Your task to perform on an android device: When is my next meeting? Image 0: 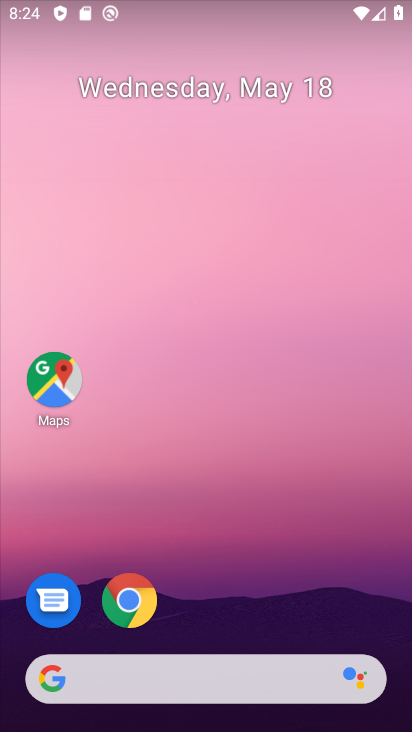
Step 0: drag from (46, 449) to (169, 99)
Your task to perform on an android device: When is my next meeting? Image 1: 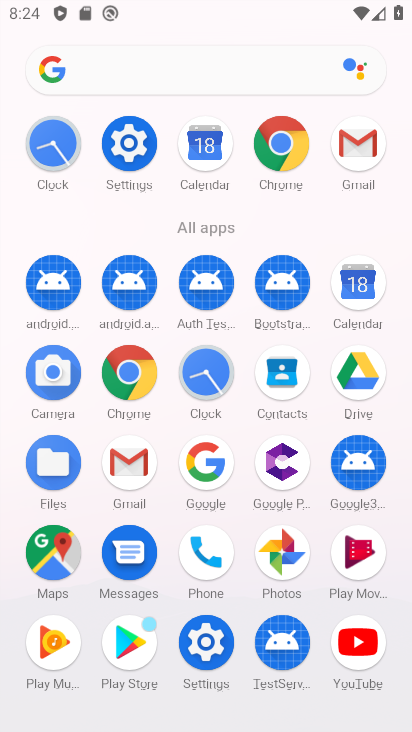
Step 1: click (211, 149)
Your task to perform on an android device: When is my next meeting? Image 2: 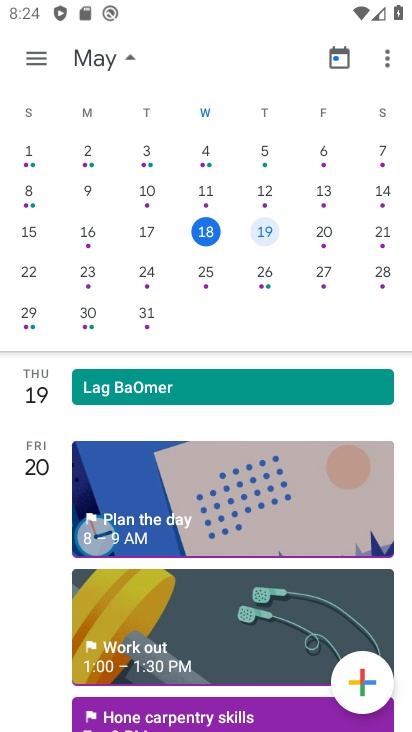
Step 2: click (36, 55)
Your task to perform on an android device: When is my next meeting? Image 3: 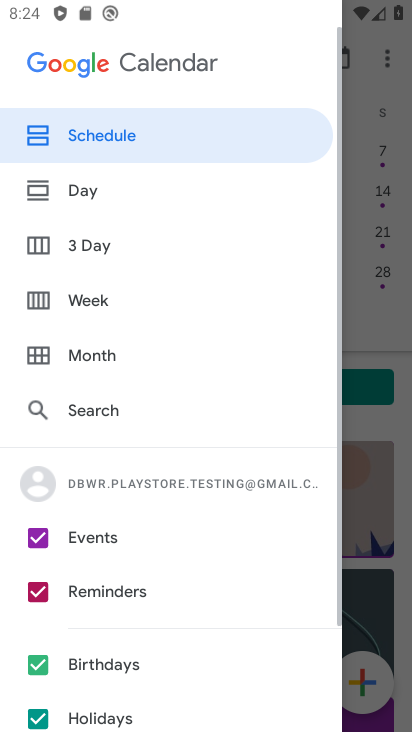
Step 3: click (72, 310)
Your task to perform on an android device: When is my next meeting? Image 4: 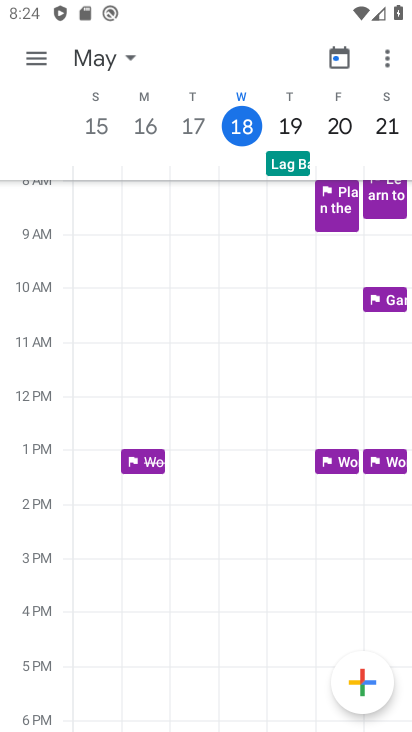
Step 4: task complete